Your task to perform on an android device: change the upload size in google photos Image 0: 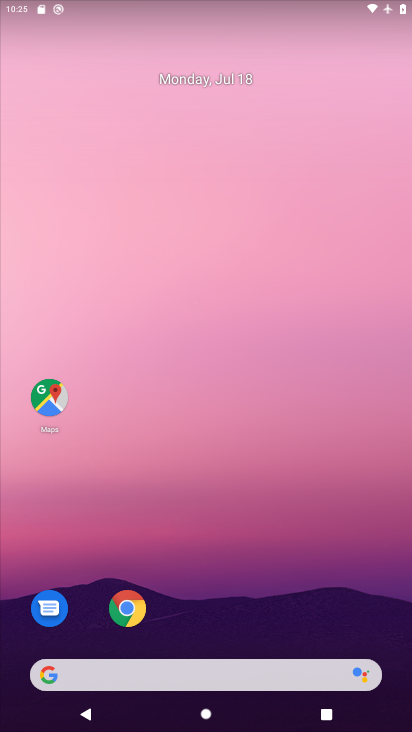
Step 0: drag from (176, 639) to (216, 6)
Your task to perform on an android device: change the upload size in google photos Image 1: 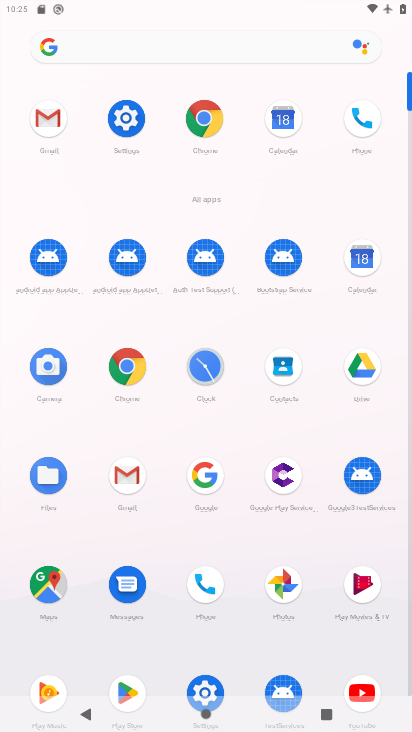
Step 1: click (277, 585)
Your task to perform on an android device: change the upload size in google photos Image 2: 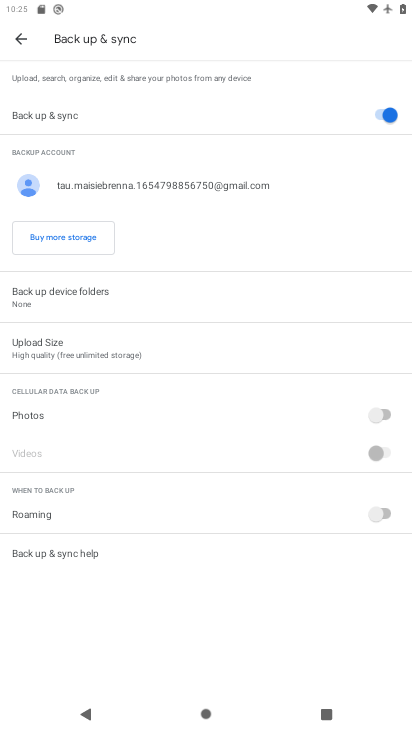
Step 2: click (89, 347)
Your task to perform on an android device: change the upload size in google photos Image 3: 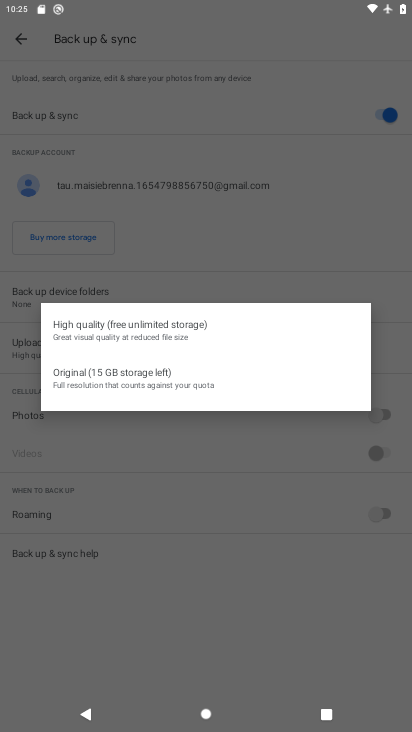
Step 3: click (120, 376)
Your task to perform on an android device: change the upload size in google photos Image 4: 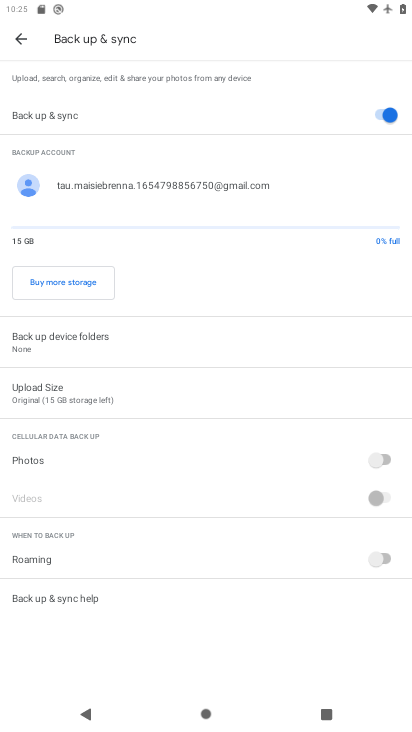
Step 4: task complete